Your task to perform on an android device: Show me productivity apps on the Play Store Image 0: 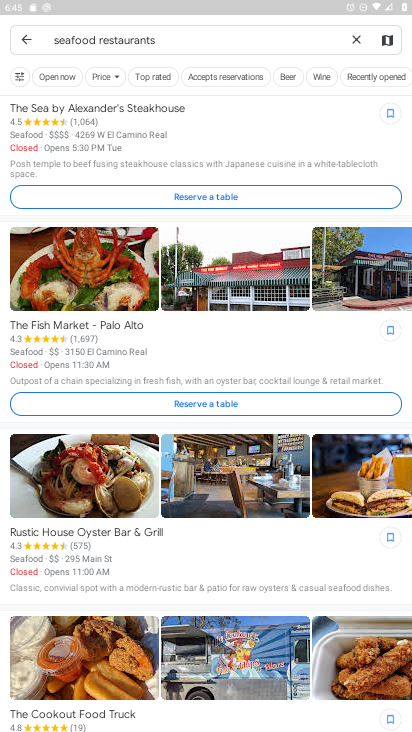
Step 0: press home button
Your task to perform on an android device: Show me productivity apps on the Play Store Image 1: 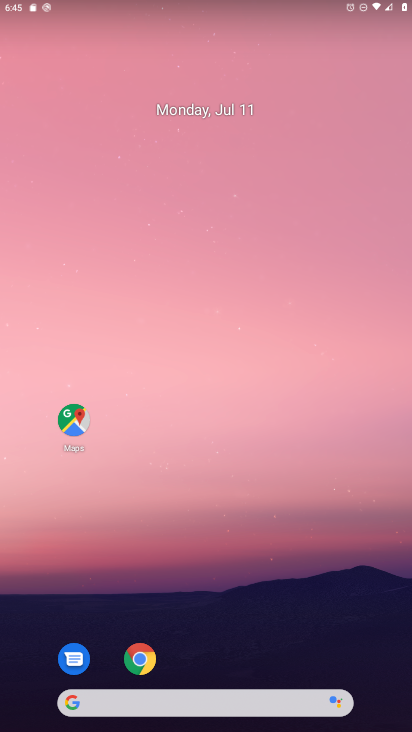
Step 1: drag from (332, 133) to (335, 26)
Your task to perform on an android device: Show me productivity apps on the Play Store Image 2: 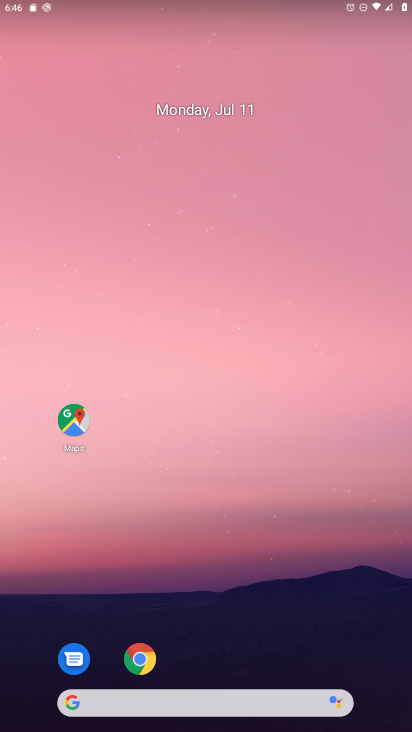
Step 2: drag from (318, 617) to (287, 134)
Your task to perform on an android device: Show me productivity apps on the Play Store Image 3: 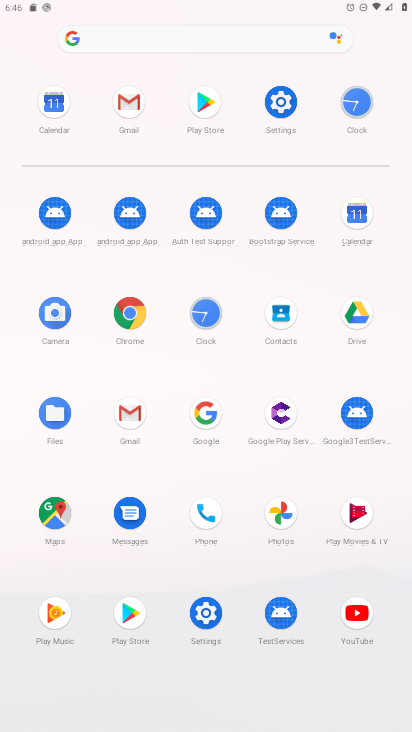
Step 3: click (132, 613)
Your task to perform on an android device: Show me productivity apps on the Play Store Image 4: 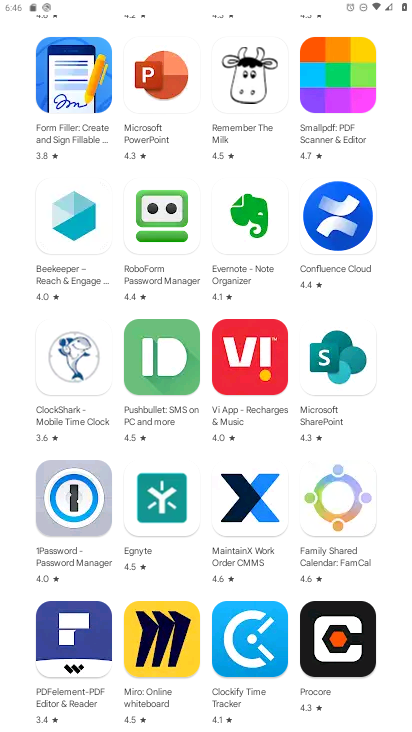
Step 4: task complete